Your task to perform on an android device: open the mobile data screen to see how much data has been used Image 0: 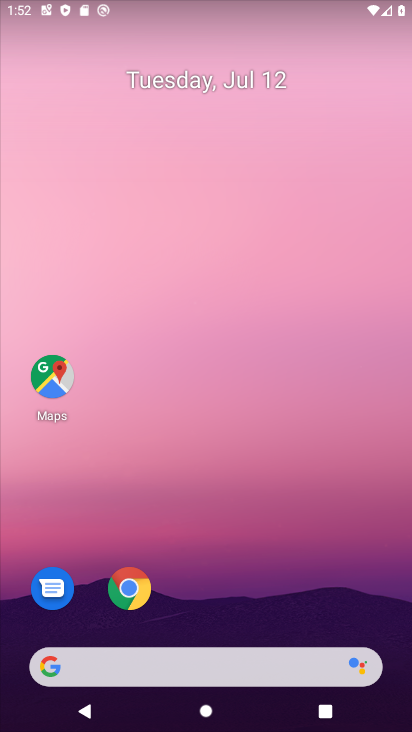
Step 0: drag from (209, 658) to (81, 111)
Your task to perform on an android device: open the mobile data screen to see how much data has been used Image 1: 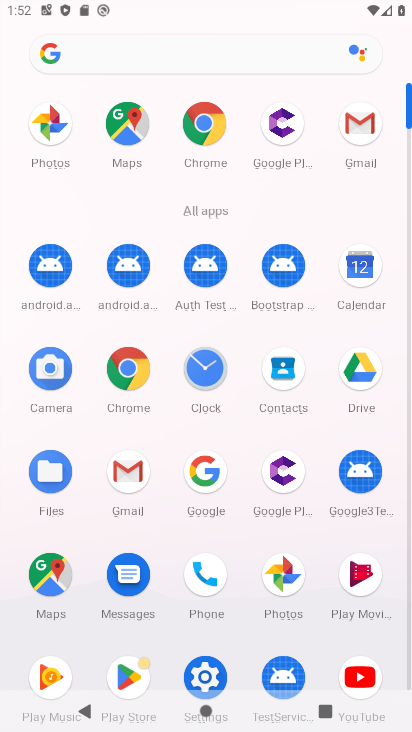
Step 1: click (208, 674)
Your task to perform on an android device: open the mobile data screen to see how much data has been used Image 2: 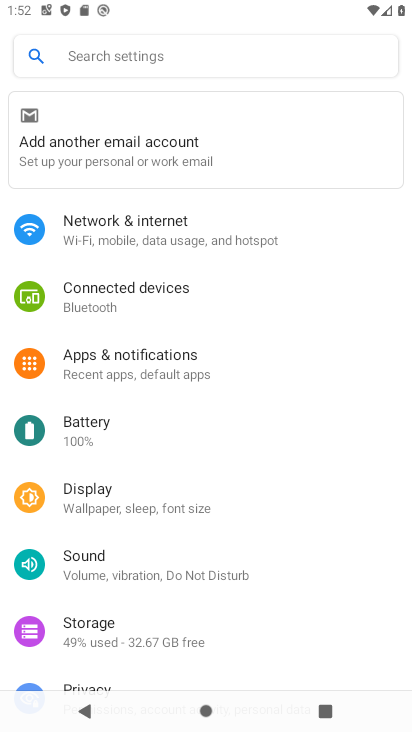
Step 2: click (142, 235)
Your task to perform on an android device: open the mobile data screen to see how much data has been used Image 3: 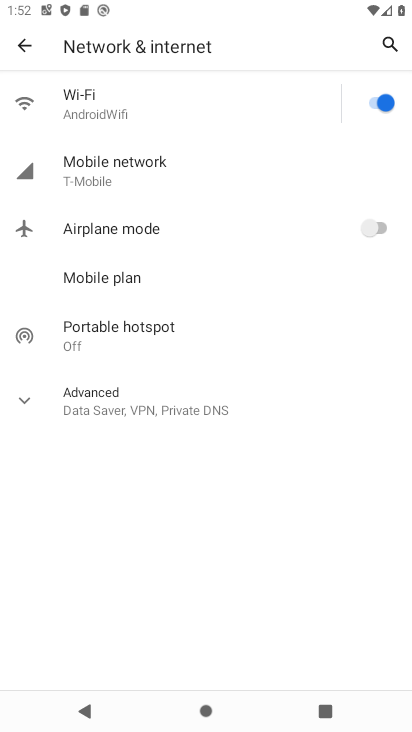
Step 3: click (157, 169)
Your task to perform on an android device: open the mobile data screen to see how much data has been used Image 4: 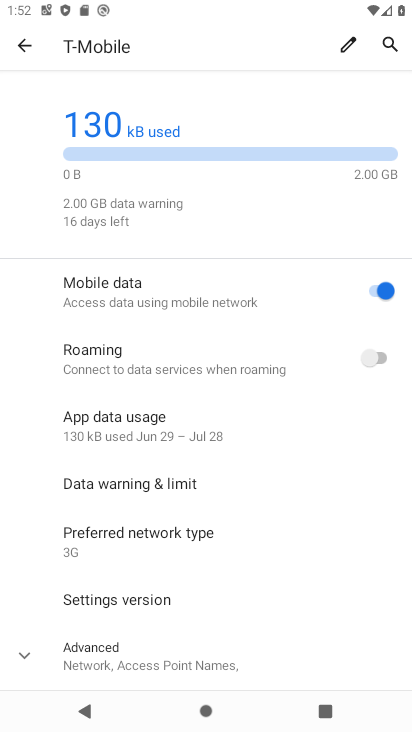
Step 4: task complete